Your task to perform on an android device: Open the stopwatch Image 0: 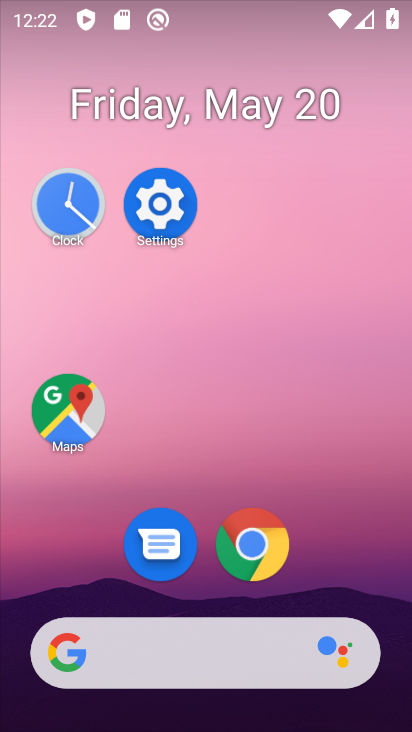
Step 0: click (71, 200)
Your task to perform on an android device: Open the stopwatch Image 1: 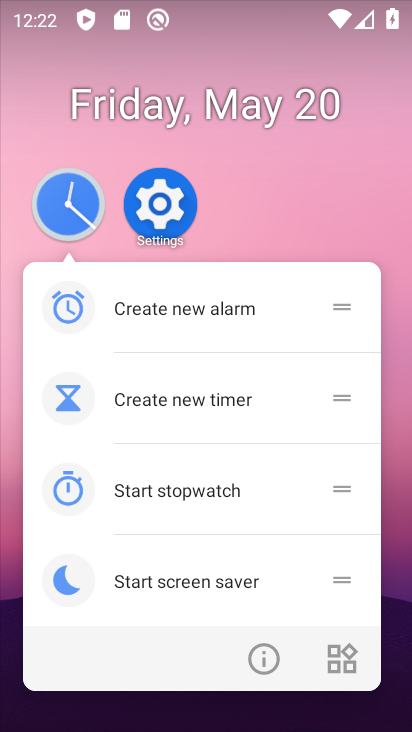
Step 1: click (286, 200)
Your task to perform on an android device: Open the stopwatch Image 2: 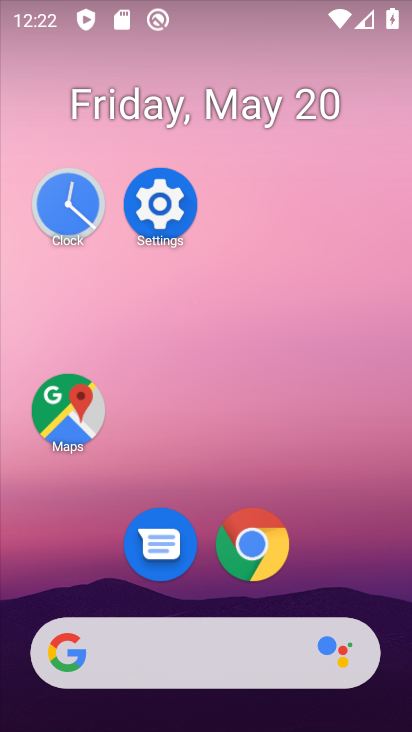
Step 2: click (46, 206)
Your task to perform on an android device: Open the stopwatch Image 3: 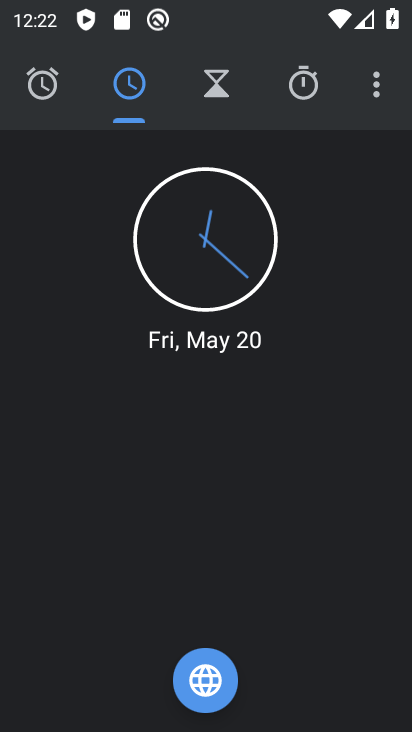
Step 3: click (335, 112)
Your task to perform on an android device: Open the stopwatch Image 4: 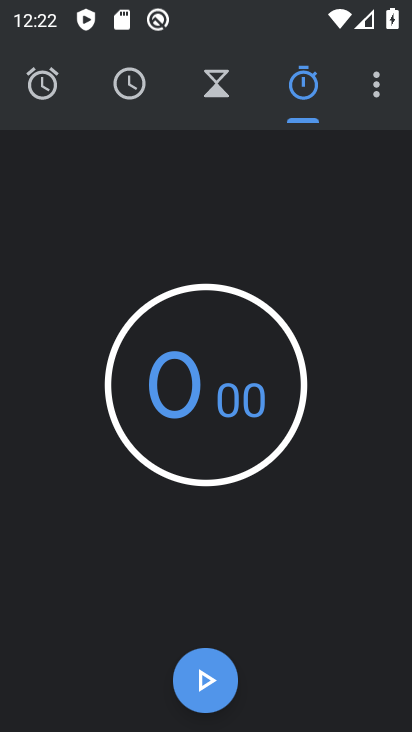
Step 4: task complete